Your task to perform on an android device: Open maps Image 0: 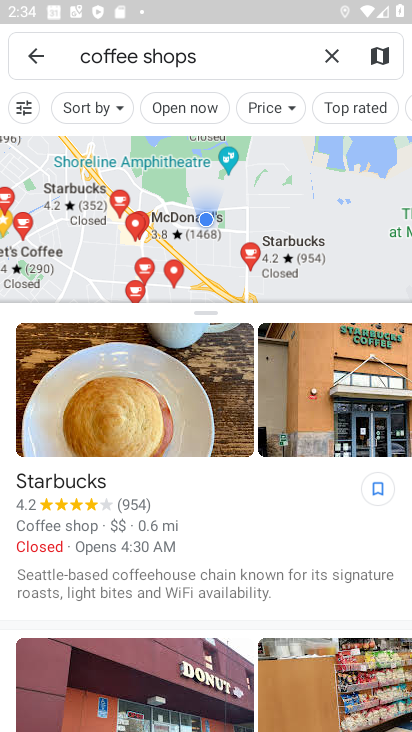
Step 0: task complete